Your task to perform on an android device: turn on sleep mode Image 0: 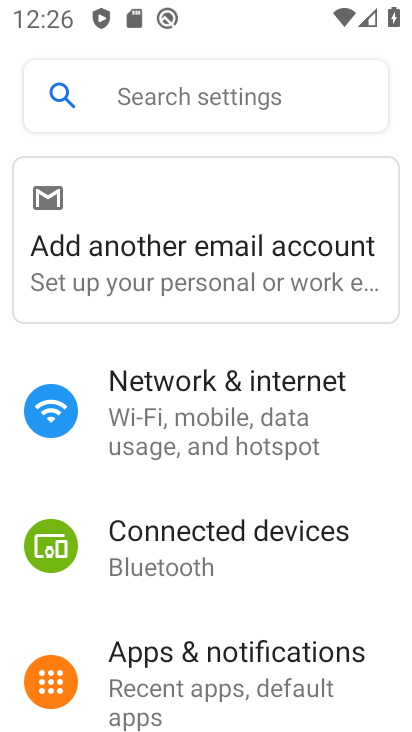
Step 0: press home button
Your task to perform on an android device: turn on sleep mode Image 1: 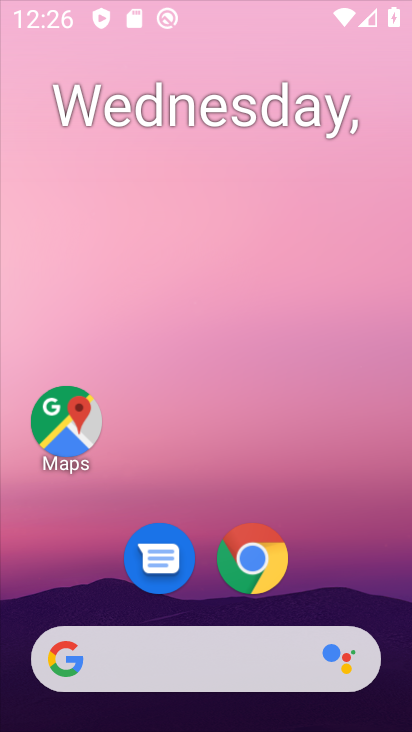
Step 1: drag from (214, 10) to (209, 689)
Your task to perform on an android device: turn on sleep mode Image 2: 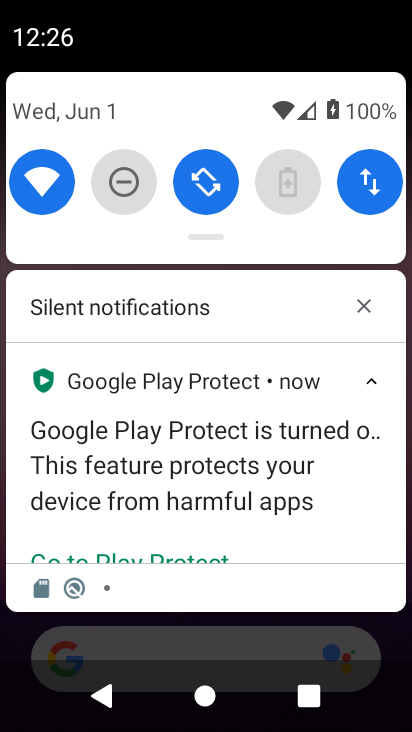
Step 2: drag from (228, 245) to (271, 659)
Your task to perform on an android device: turn on sleep mode Image 3: 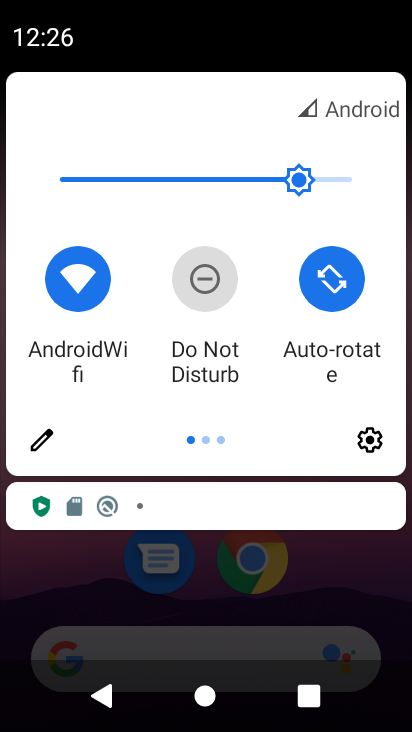
Step 3: click (42, 440)
Your task to perform on an android device: turn on sleep mode Image 4: 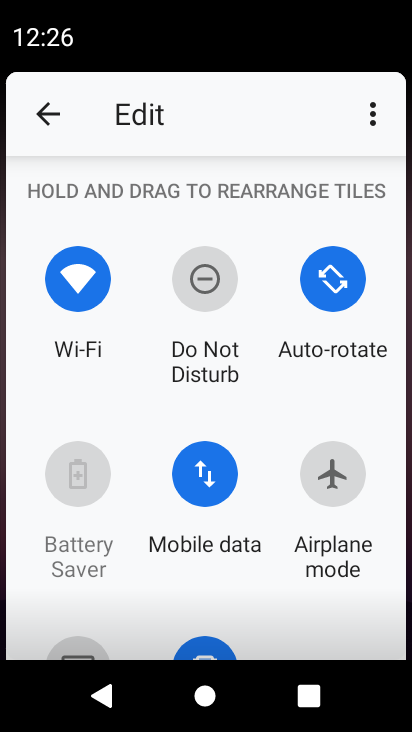
Step 4: task complete